Your task to perform on an android device: Open notification settings Image 0: 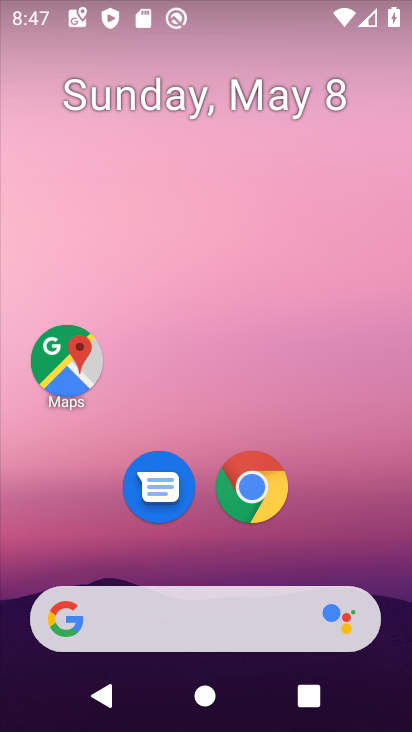
Step 0: drag from (190, 545) to (200, 74)
Your task to perform on an android device: Open notification settings Image 1: 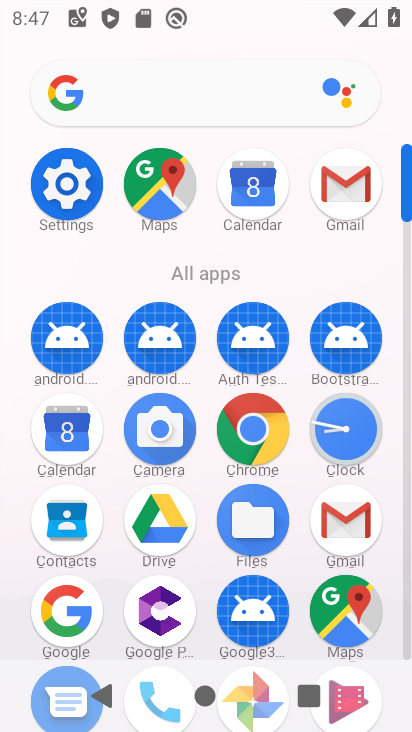
Step 1: click (73, 180)
Your task to perform on an android device: Open notification settings Image 2: 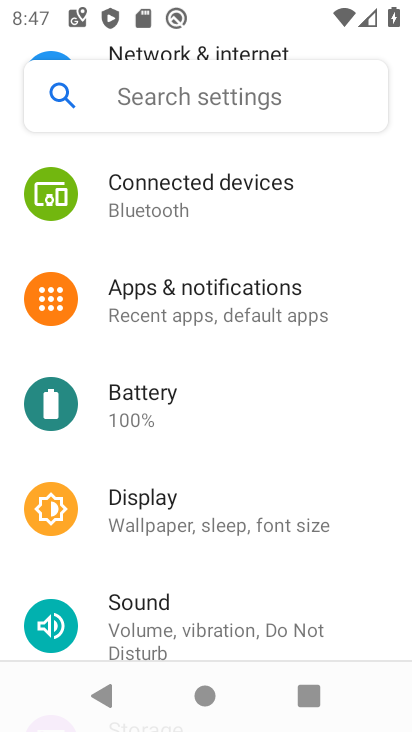
Step 2: drag from (234, 191) to (248, 425)
Your task to perform on an android device: Open notification settings Image 3: 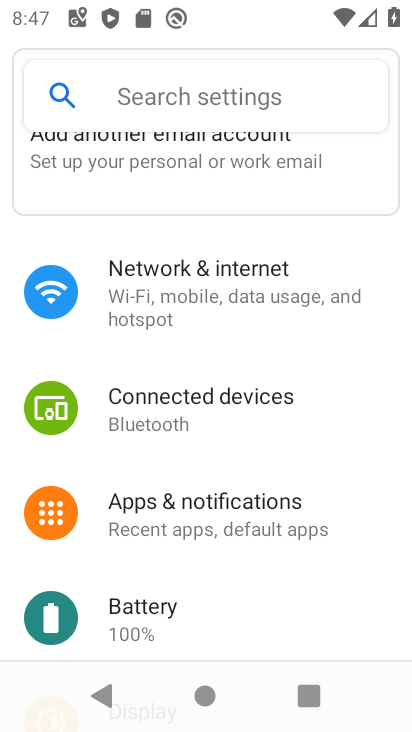
Step 3: click (206, 530)
Your task to perform on an android device: Open notification settings Image 4: 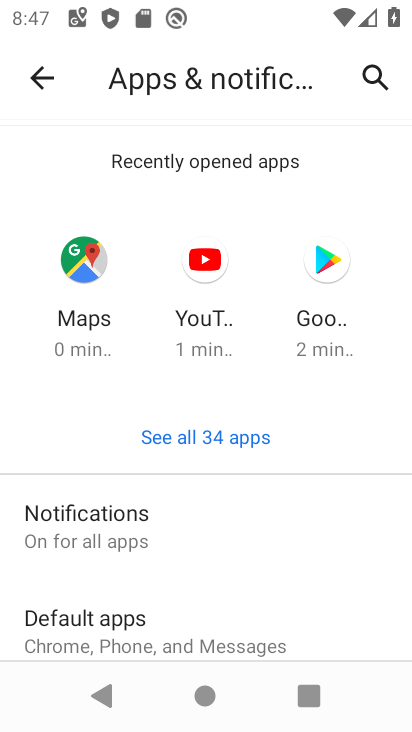
Step 4: click (158, 541)
Your task to perform on an android device: Open notification settings Image 5: 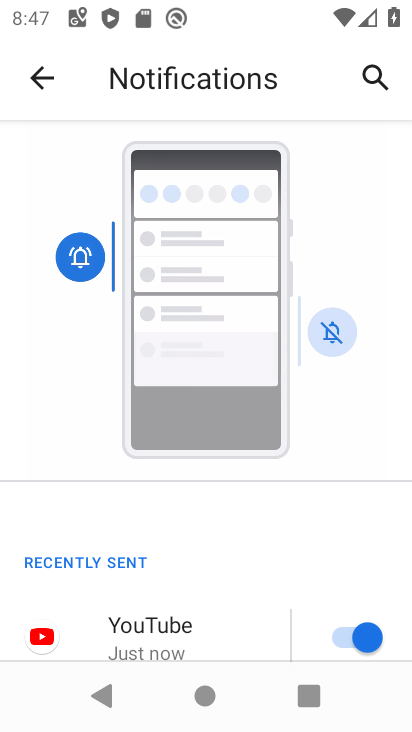
Step 5: task complete